Your task to perform on an android device: open app "Viber Messenger" (install if not already installed) Image 0: 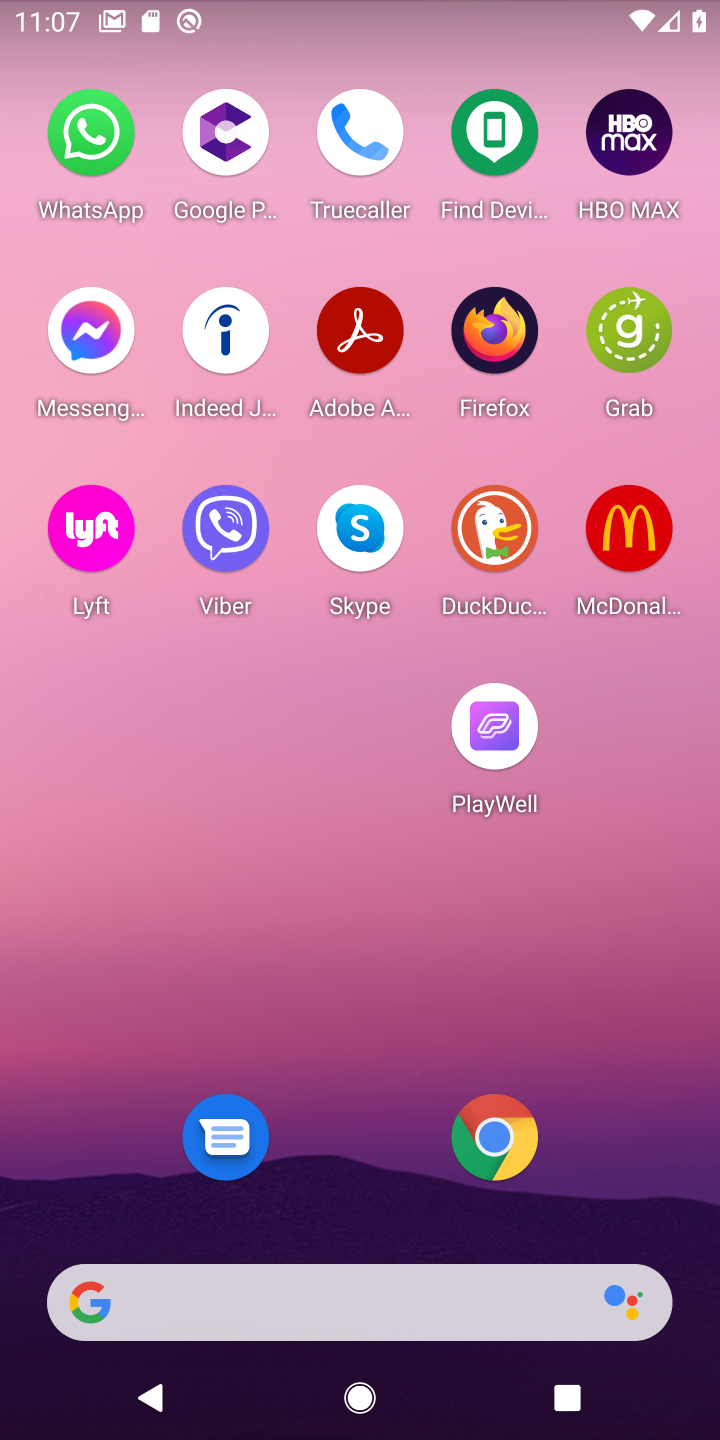
Step 0: drag from (353, 1171) to (475, 22)
Your task to perform on an android device: open app "Viber Messenger" (install if not already installed) Image 1: 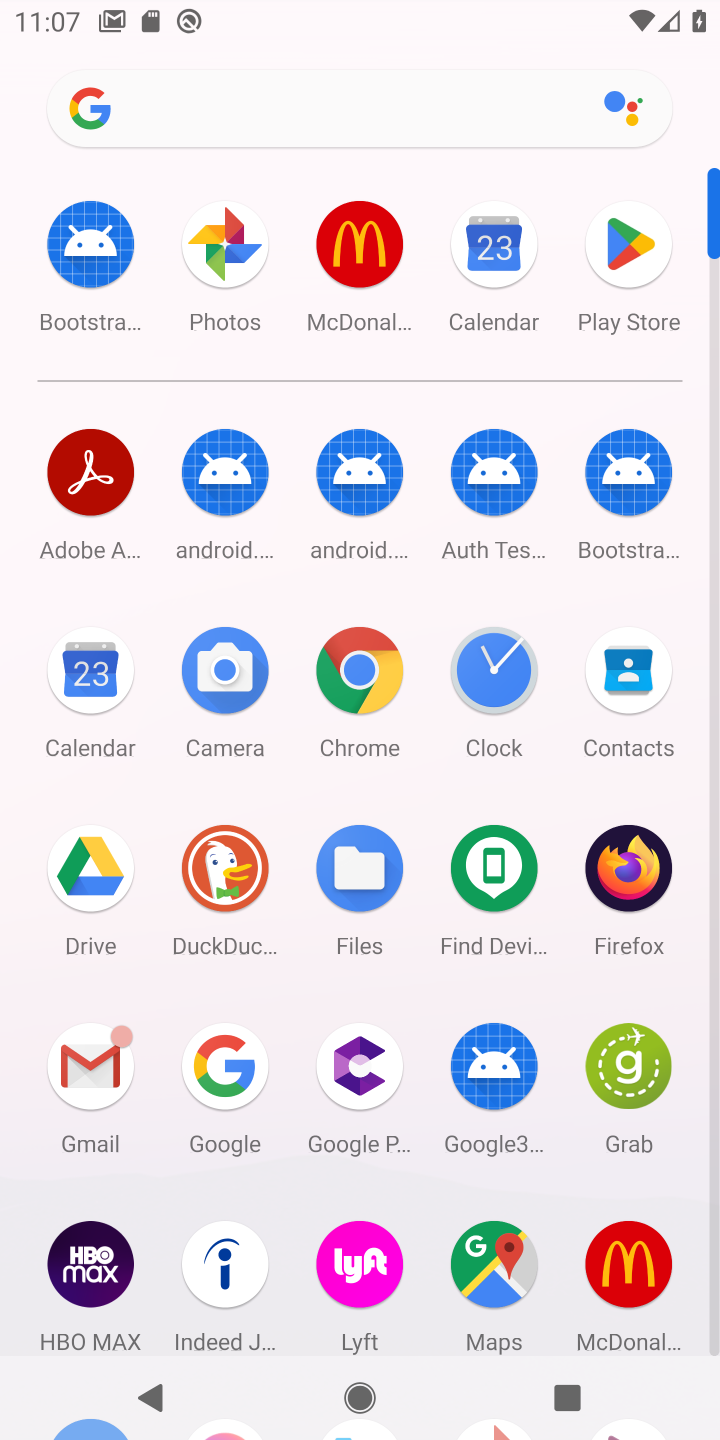
Step 1: click (633, 285)
Your task to perform on an android device: open app "Viber Messenger" (install if not already installed) Image 2: 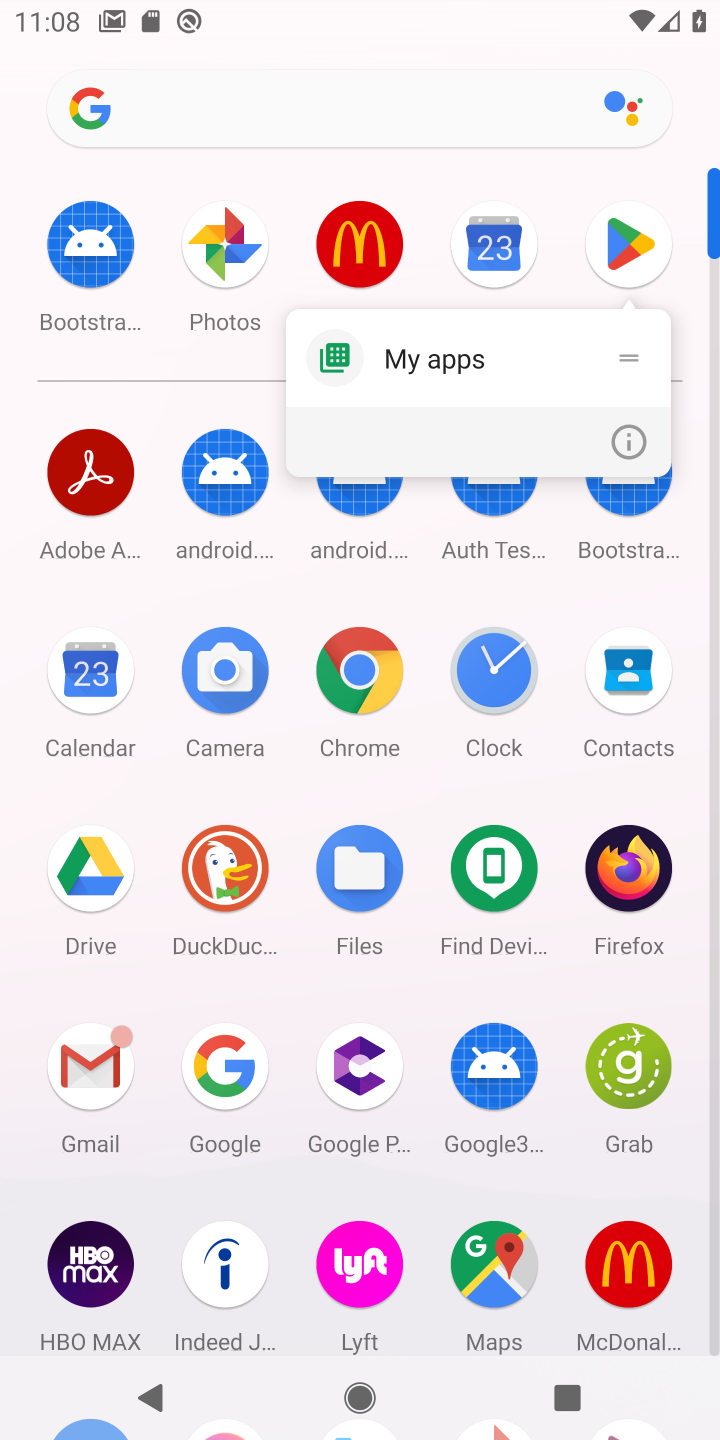
Step 2: click (625, 249)
Your task to perform on an android device: open app "Viber Messenger" (install if not already installed) Image 3: 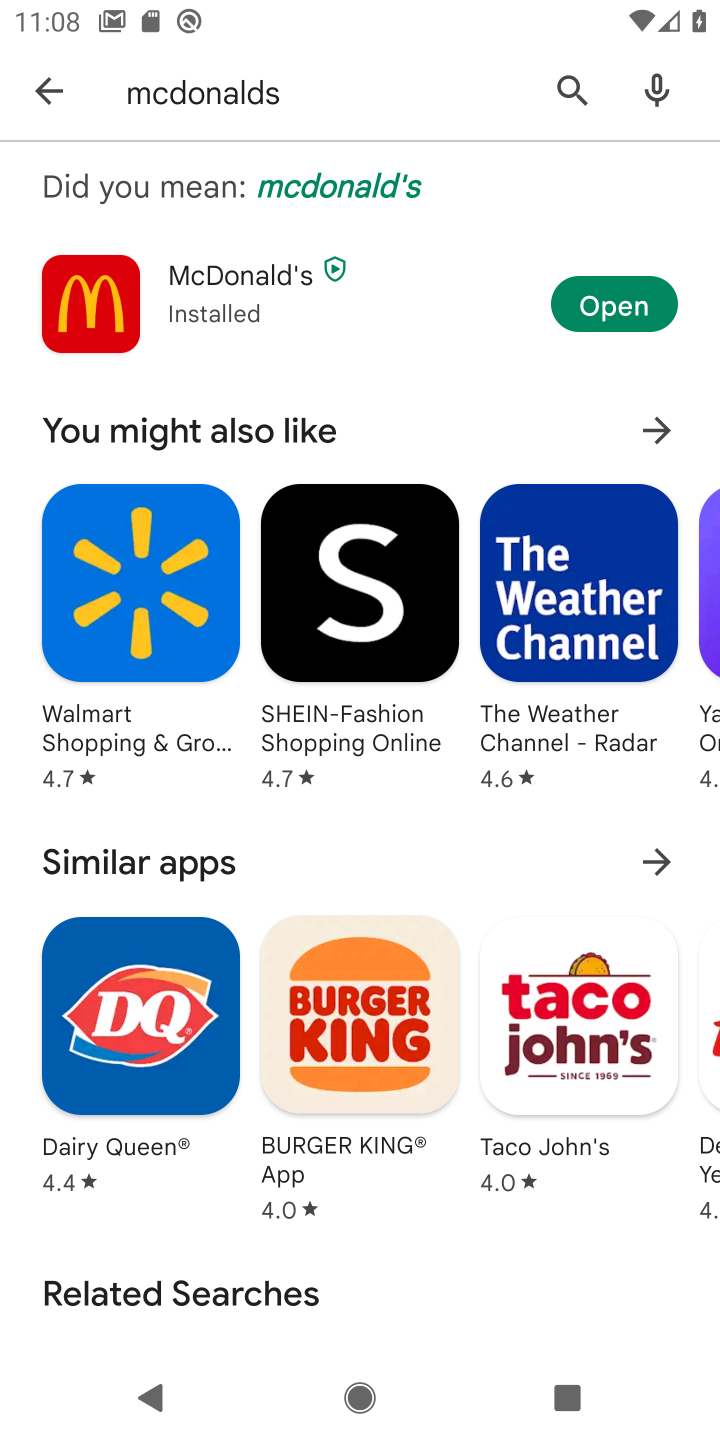
Step 3: click (233, 72)
Your task to perform on an android device: open app "Viber Messenger" (install if not already installed) Image 4: 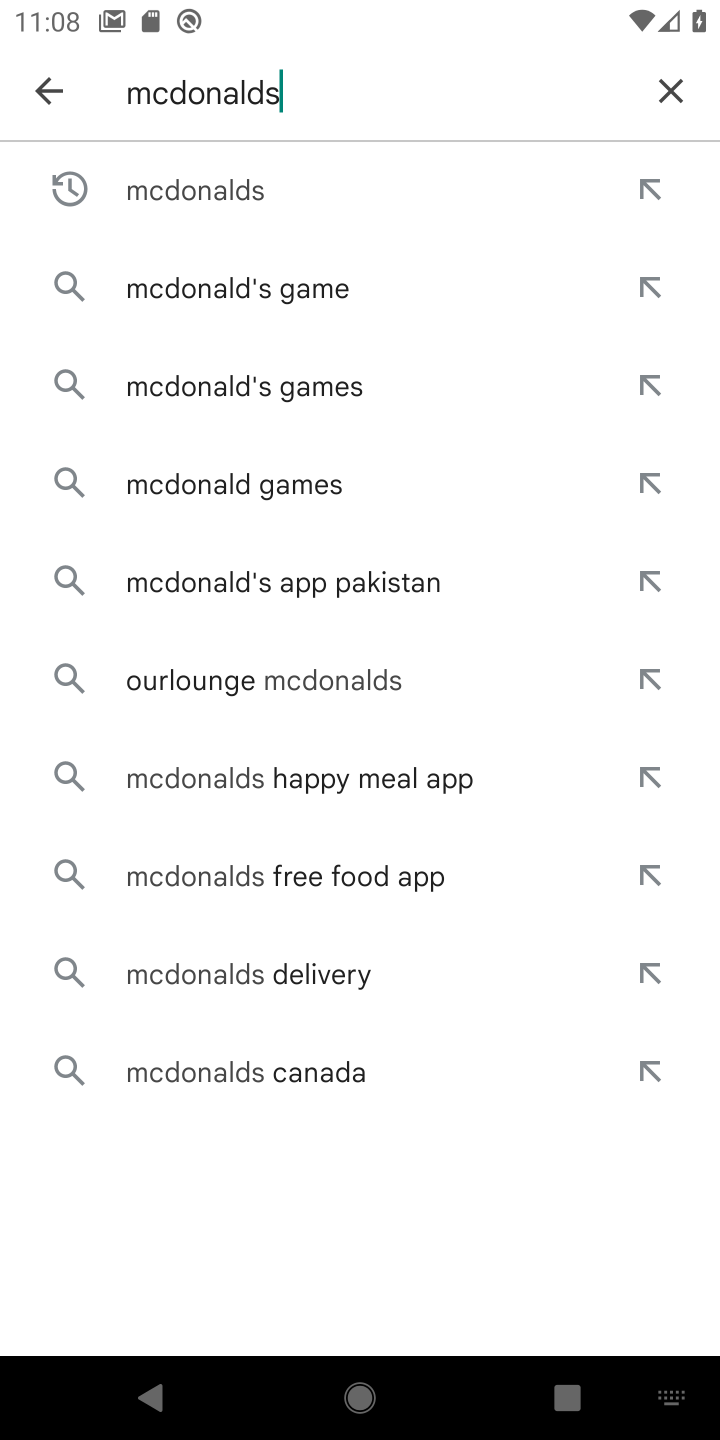
Step 4: click (666, 87)
Your task to perform on an android device: open app "Viber Messenger" (install if not already installed) Image 5: 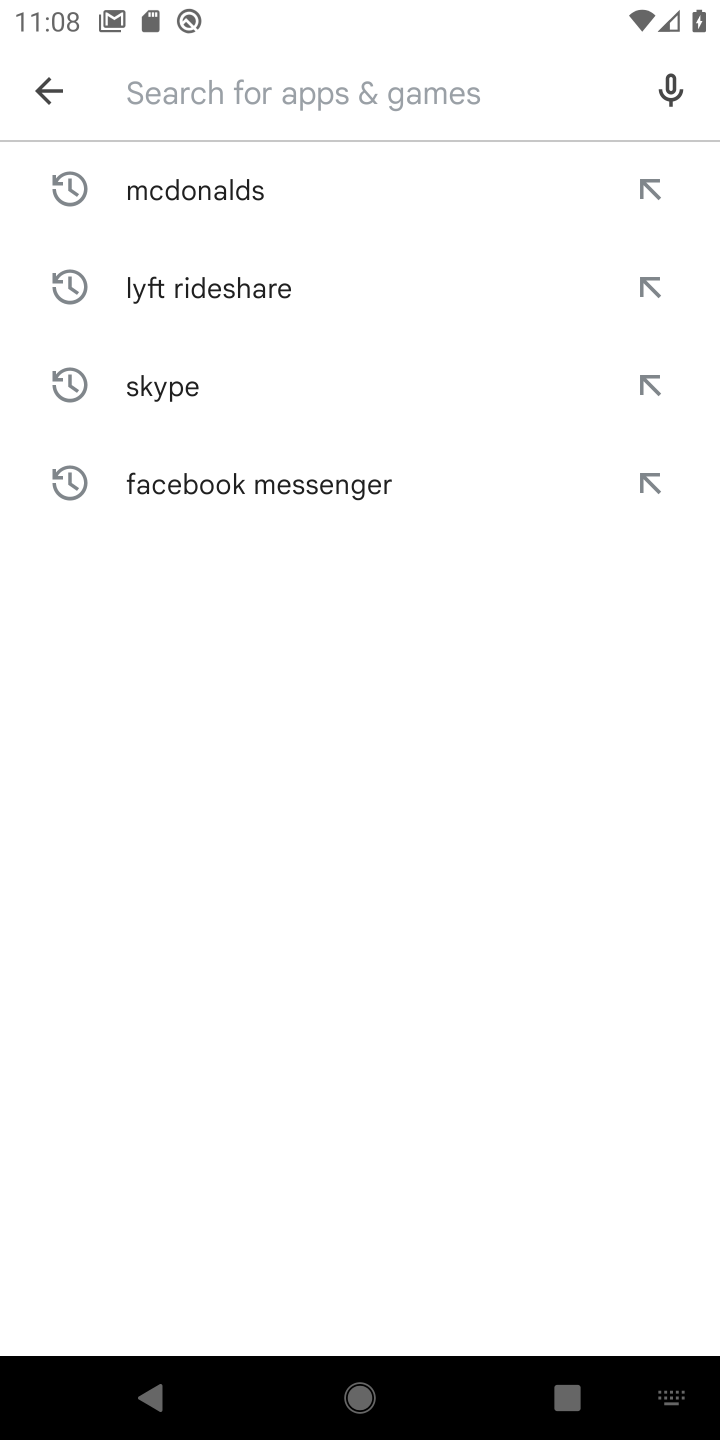
Step 5: type "Viber messenger"
Your task to perform on an android device: open app "Viber Messenger" (install if not already installed) Image 6: 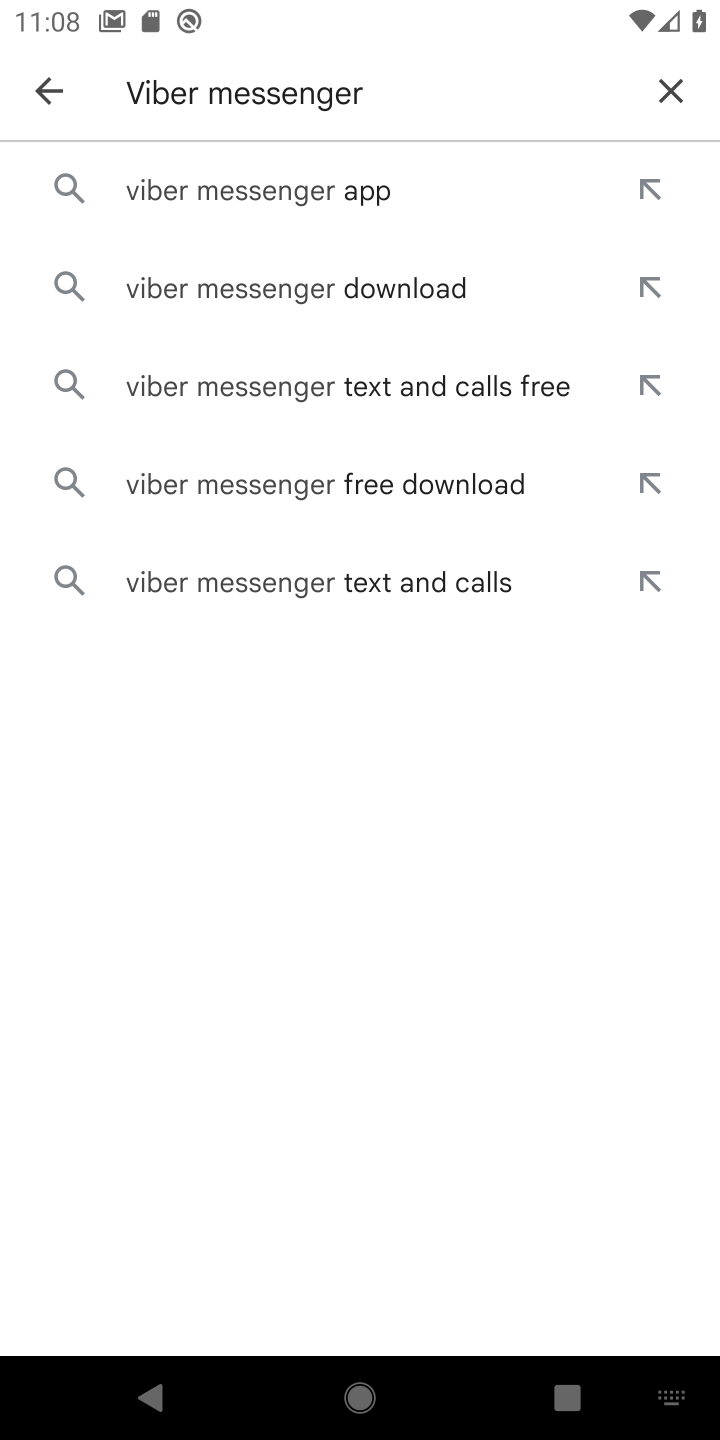
Step 6: click (318, 189)
Your task to perform on an android device: open app "Viber Messenger" (install if not already installed) Image 7: 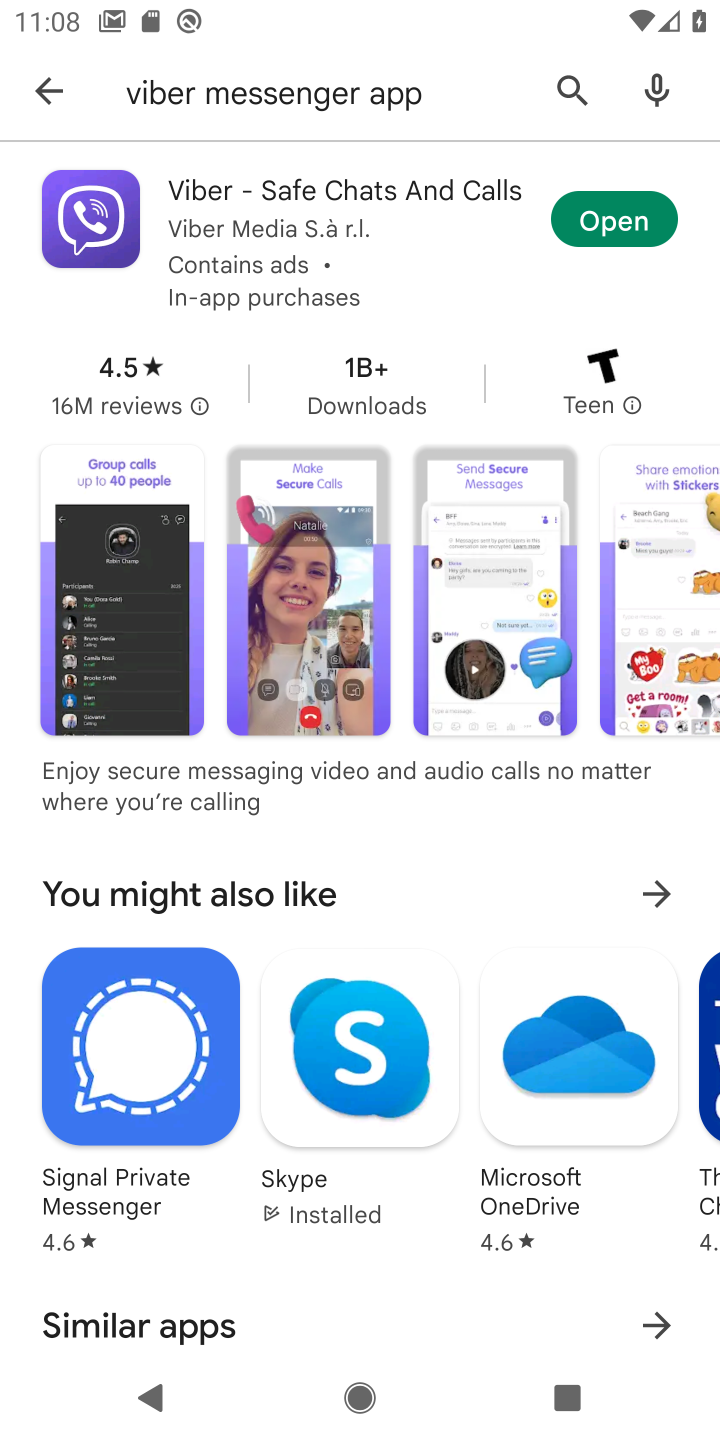
Step 7: click (619, 211)
Your task to perform on an android device: open app "Viber Messenger" (install if not already installed) Image 8: 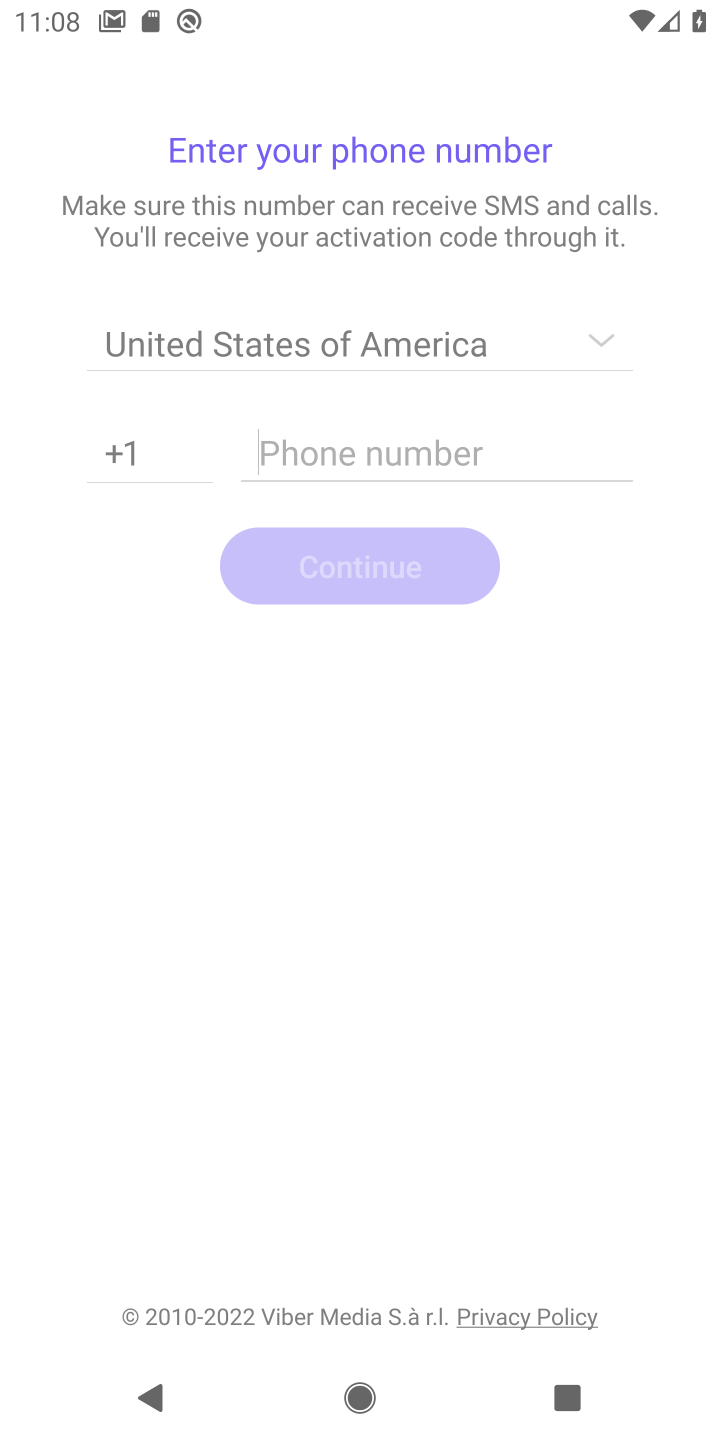
Step 8: task complete